Your task to perform on an android device: turn notification dots on Image 0: 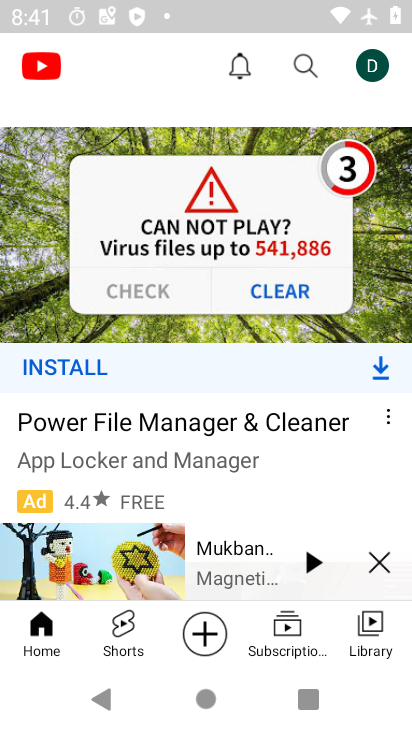
Step 0: press home button
Your task to perform on an android device: turn notification dots on Image 1: 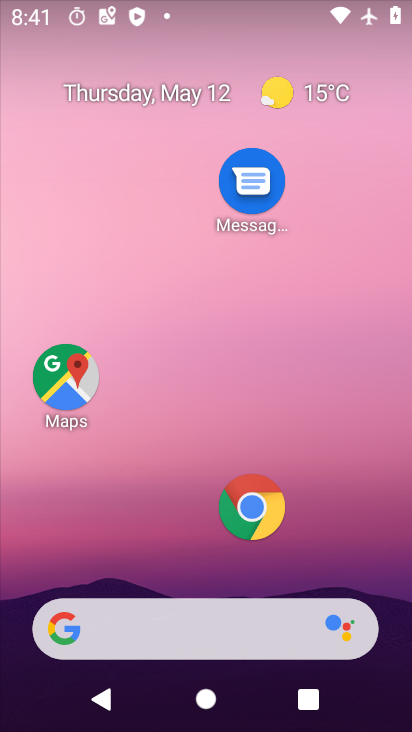
Step 1: drag from (347, 567) to (340, 47)
Your task to perform on an android device: turn notification dots on Image 2: 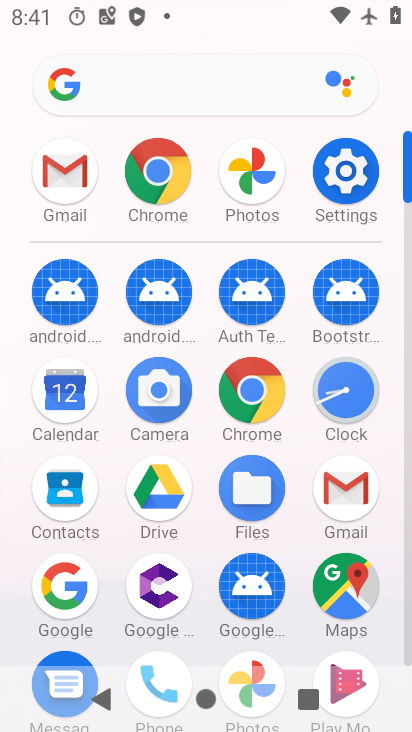
Step 2: click (340, 162)
Your task to perform on an android device: turn notification dots on Image 3: 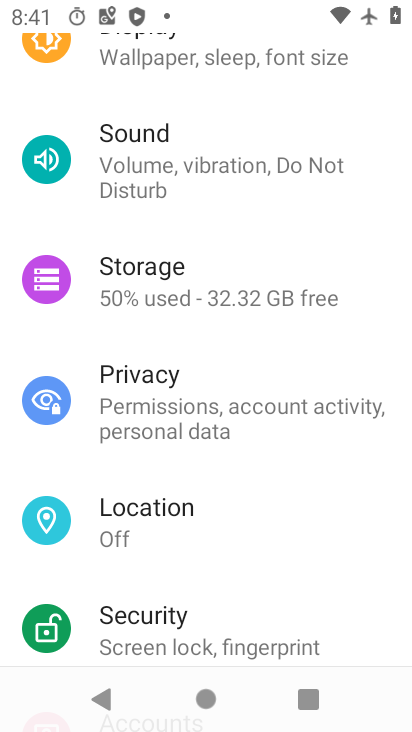
Step 3: drag from (206, 372) to (195, 574)
Your task to perform on an android device: turn notification dots on Image 4: 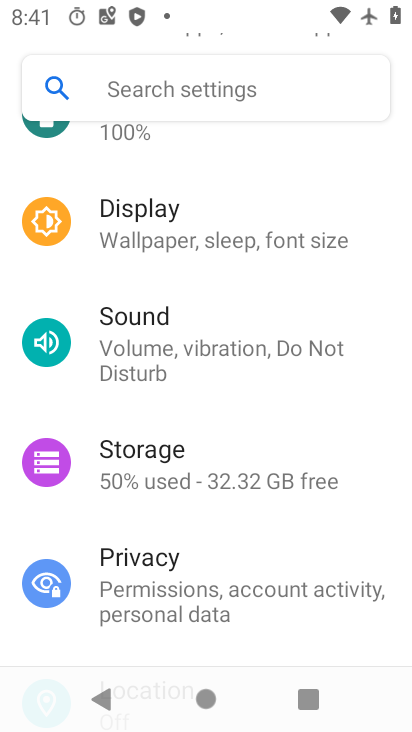
Step 4: drag from (177, 304) to (133, 624)
Your task to perform on an android device: turn notification dots on Image 5: 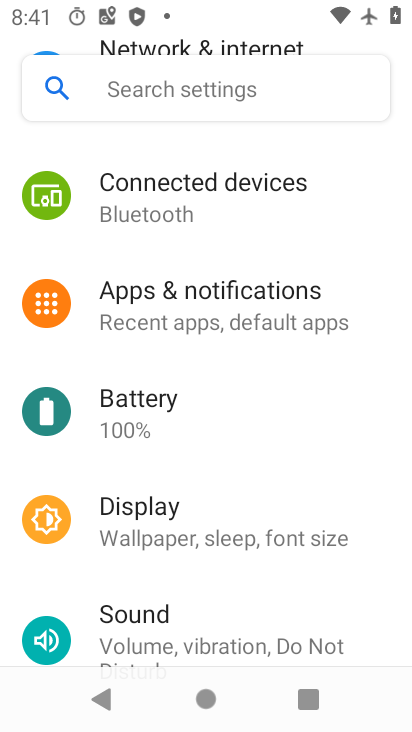
Step 5: click (209, 298)
Your task to perform on an android device: turn notification dots on Image 6: 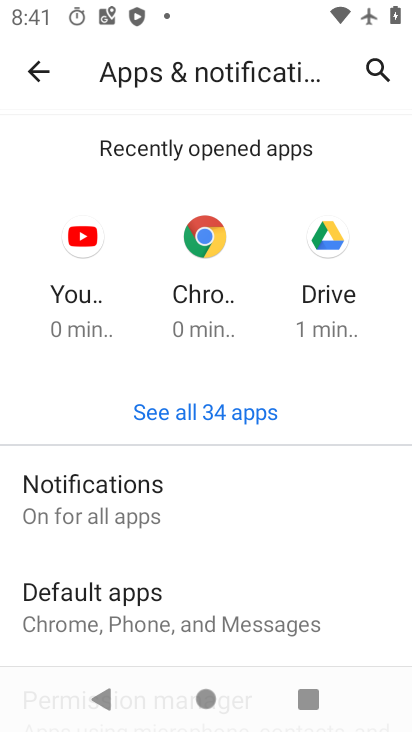
Step 6: click (189, 489)
Your task to perform on an android device: turn notification dots on Image 7: 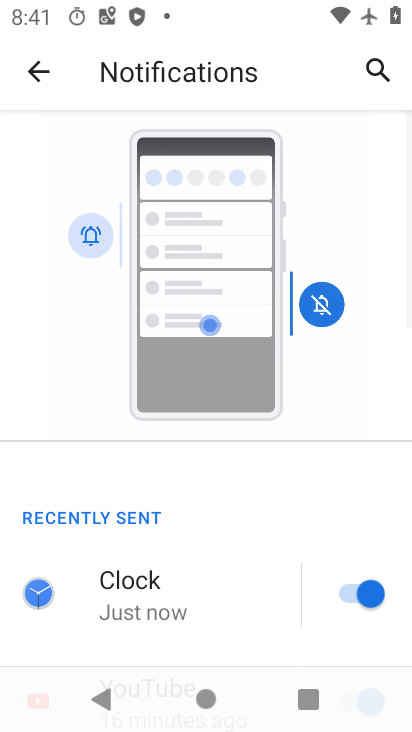
Step 7: drag from (203, 572) to (269, 193)
Your task to perform on an android device: turn notification dots on Image 8: 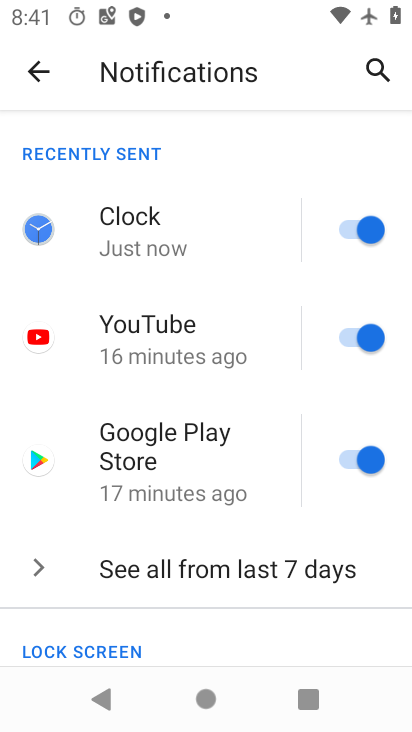
Step 8: drag from (215, 607) to (224, 217)
Your task to perform on an android device: turn notification dots on Image 9: 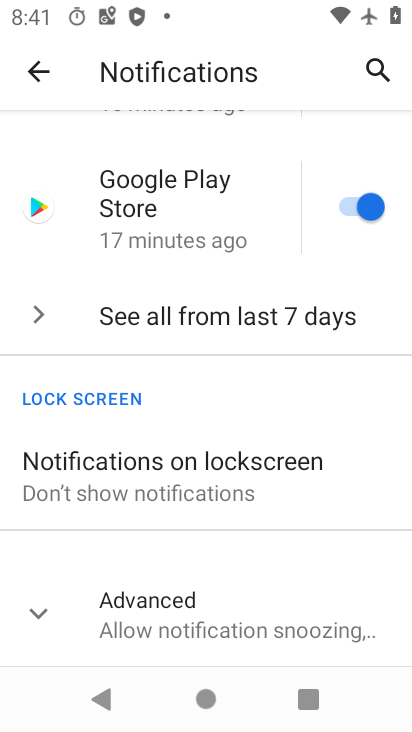
Step 9: click (100, 621)
Your task to perform on an android device: turn notification dots on Image 10: 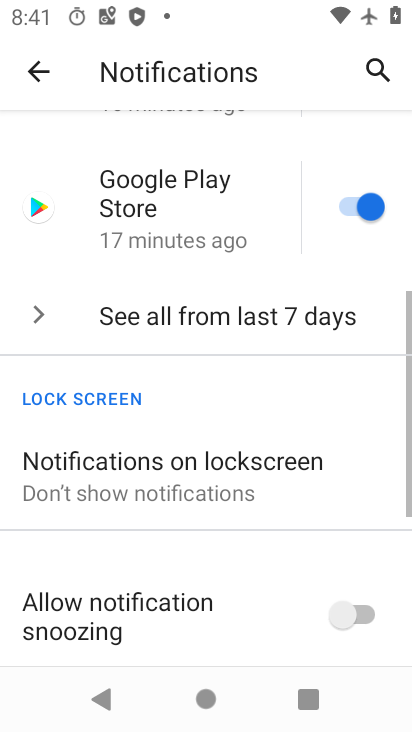
Step 10: task complete